Your task to perform on an android device: Open Yahoo.com Image 0: 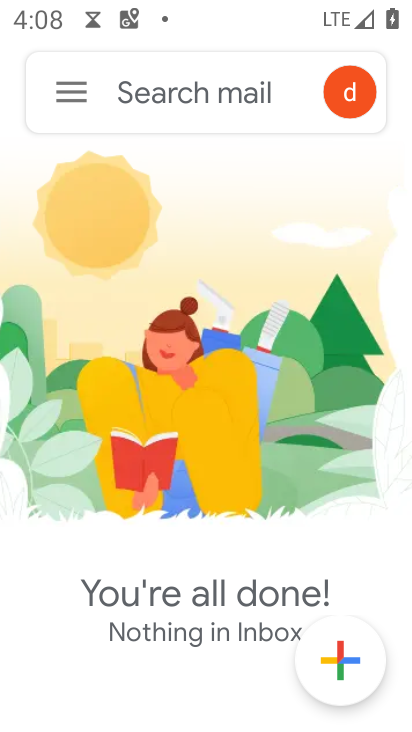
Step 0: press home button
Your task to perform on an android device: Open Yahoo.com Image 1: 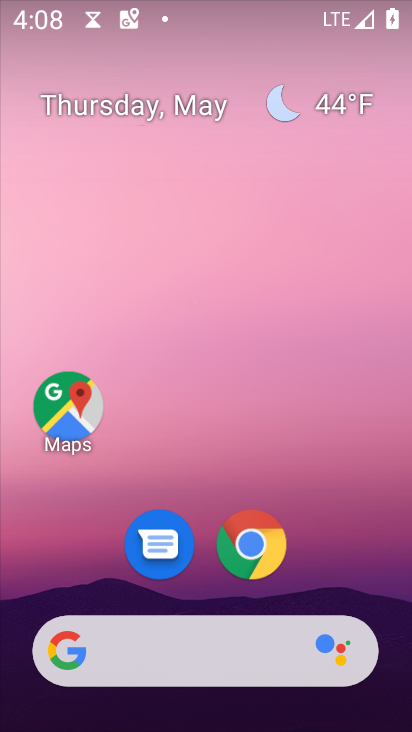
Step 1: click (259, 541)
Your task to perform on an android device: Open Yahoo.com Image 2: 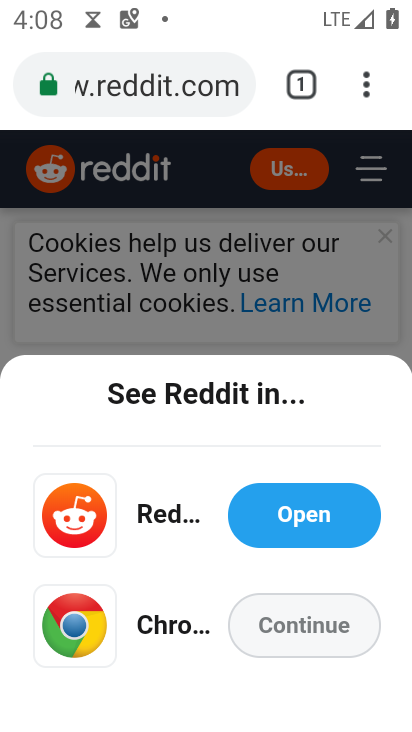
Step 2: click (105, 96)
Your task to perform on an android device: Open Yahoo.com Image 3: 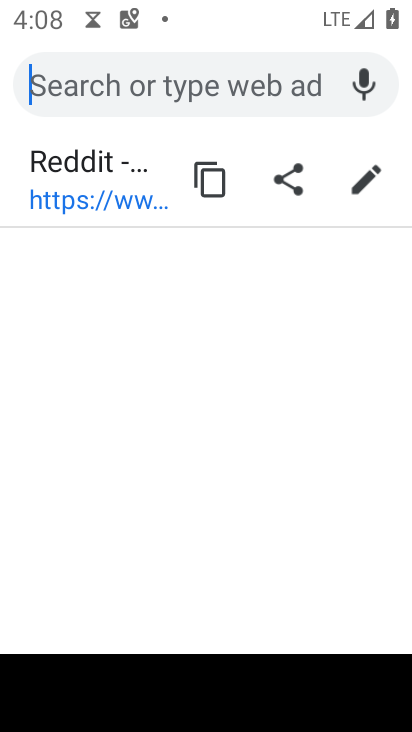
Step 3: type "yahoo.com"
Your task to perform on an android device: Open Yahoo.com Image 4: 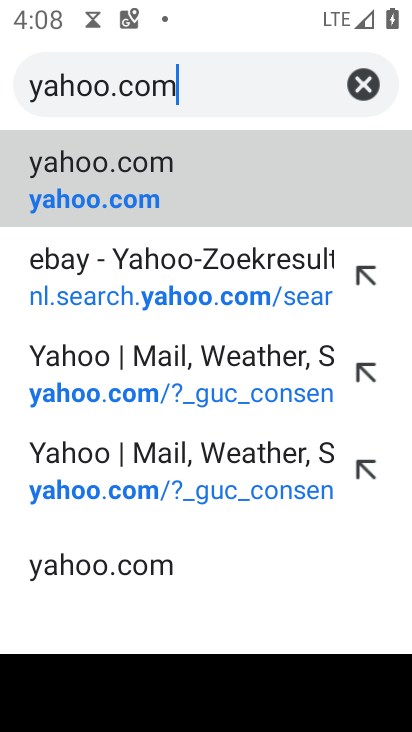
Step 4: click (201, 159)
Your task to perform on an android device: Open Yahoo.com Image 5: 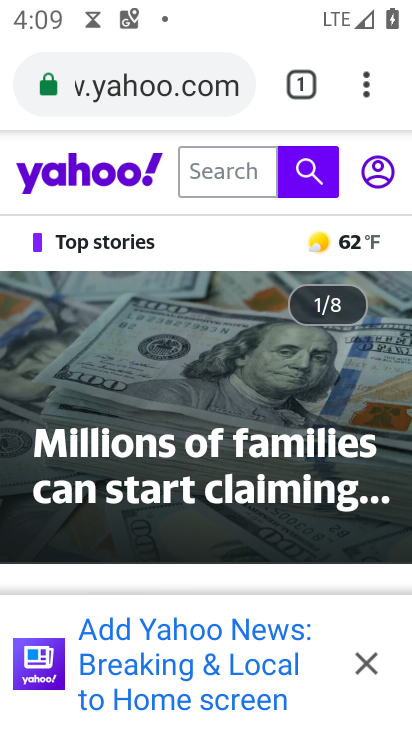
Step 5: task complete